Your task to perform on an android device: set an alarm Image 0: 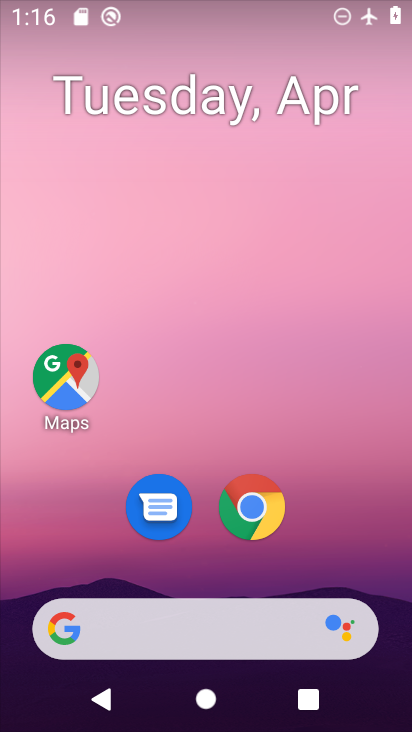
Step 0: drag from (318, 552) to (257, 204)
Your task to perform on an android device: set an alarm Image 1: 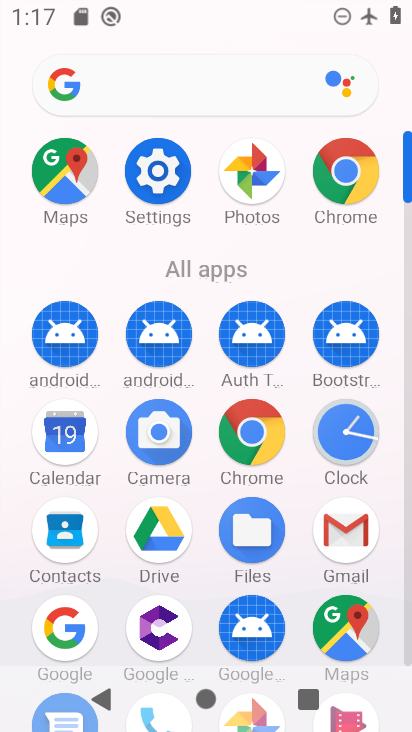
Step 1: click (352, 447)
Your task to perform on an android device: set an alarm Image 2: 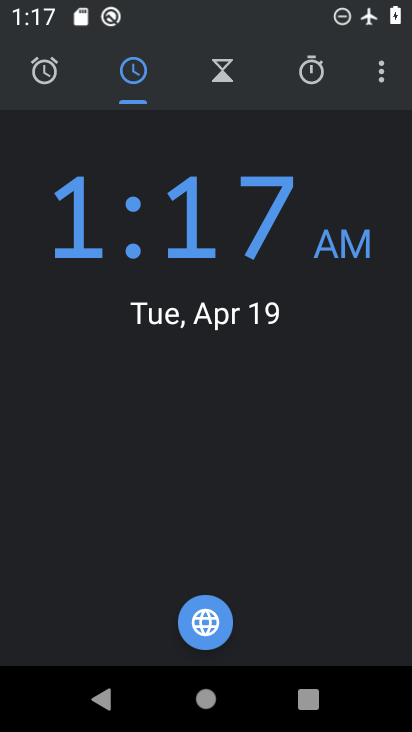
Step 2: click (51, 78)
Your task to perform on an android device: set an alarm Image 3: 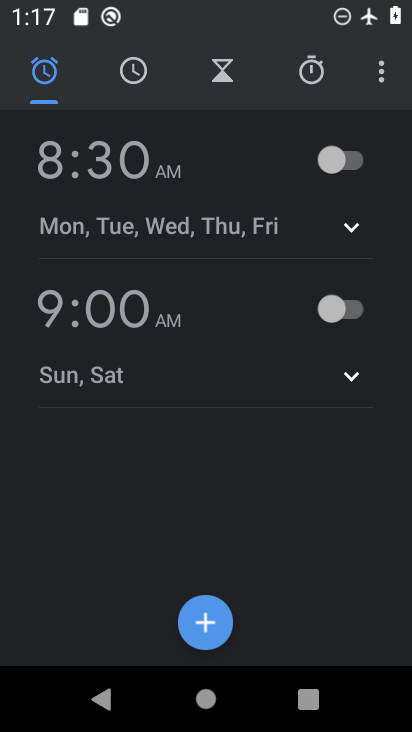
Step 3: click (325, 155)
Your task to perform on an android device: set an alarm Image 4: 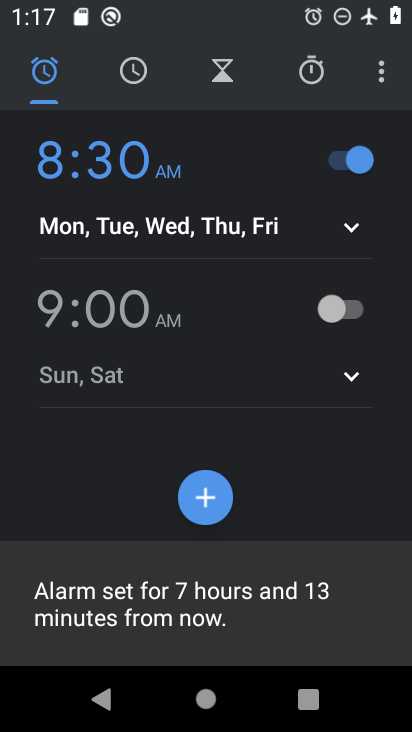
Step 4: task complete